Your task to perform on an android device: Go to wifi settings Image 0: 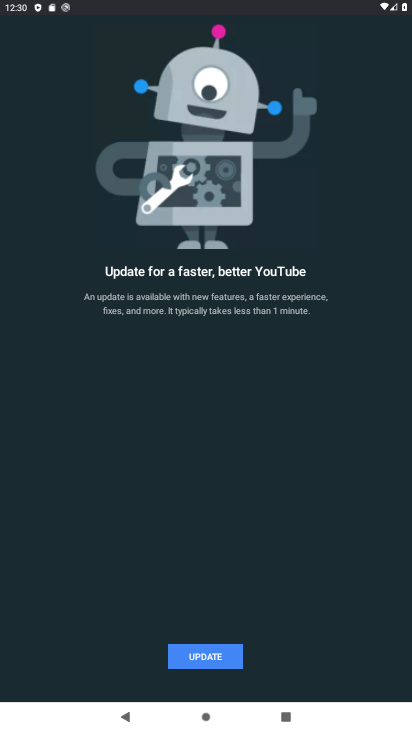
Step 0: press home button
Your task to perform on an android device: Go to wifi settings Image 1: 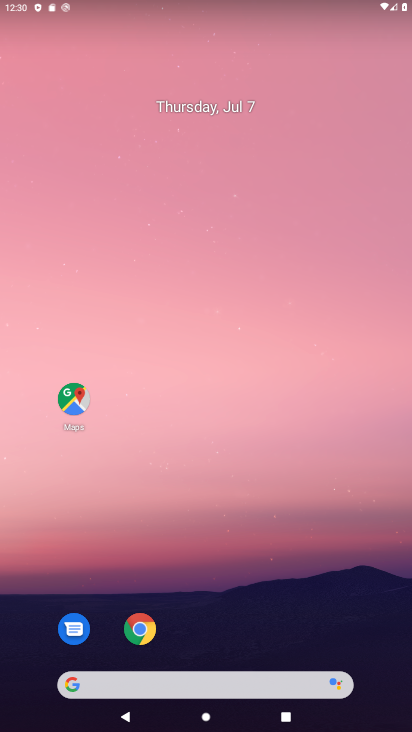
Step 1: drag from (257, 603) to (260, 110)
Your task to perform on an android device: Go to wifi settings Image 2: 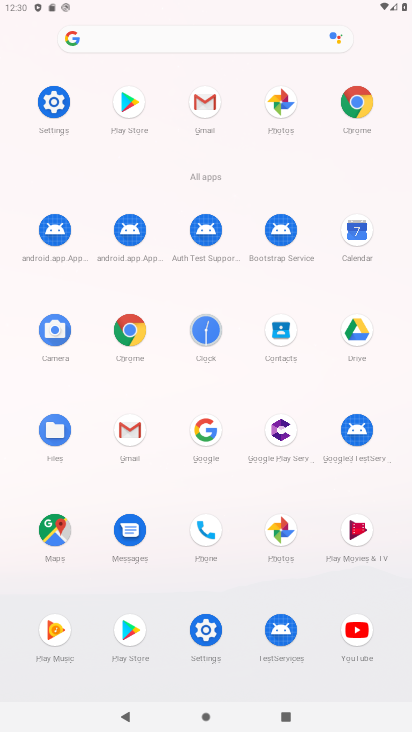
Step 2: click (53, 101)
Your task to perform on an android device: Go to wifi settings Image 3: 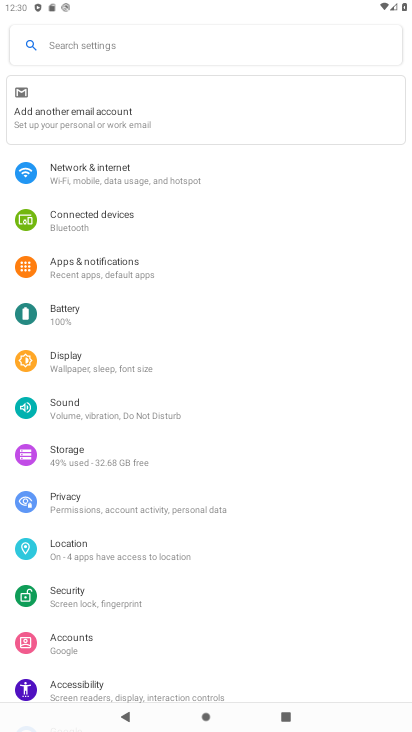
Step 3: click (102, 180)
Your task to perform on an android device: Go to wifi settings Image 4: 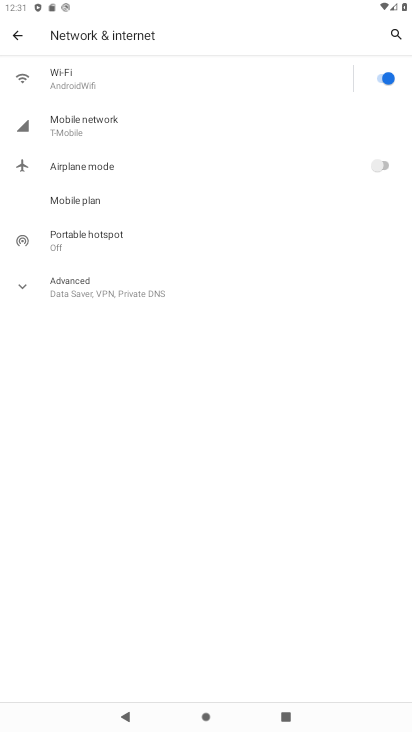
Step 4: click (84, 84)
Your task to perform on an android device: Go to wifi settings Image 5: 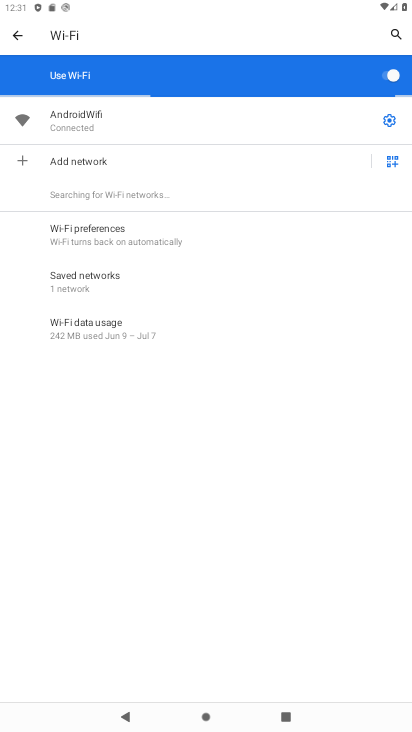
Step 5: click (393, 124)
Your task to perform on an android device: Go to wifi settings Image 6: 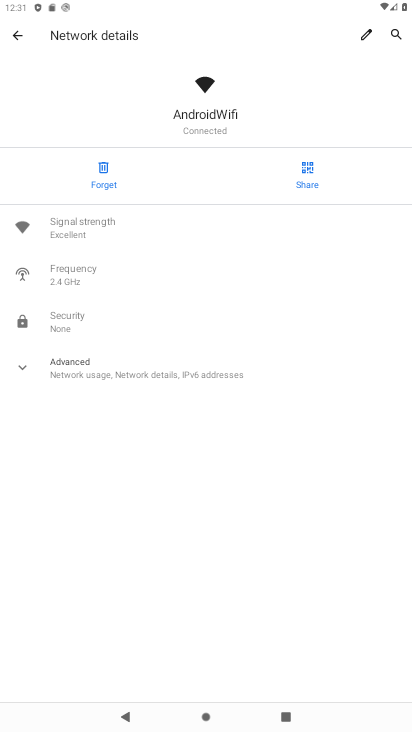
Step 6: task complete